Your task to perform on an android device: Go to CNN.com Image 0: 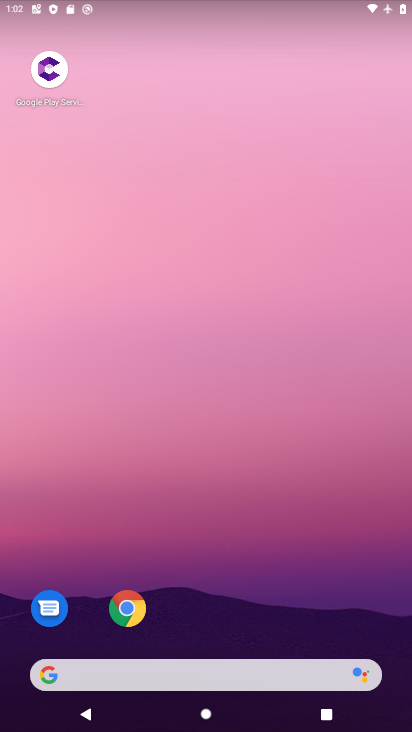
Step 0: drag from (259, 577) to (255, 65)
Your task to perform on an android device: Go to CNN.com Image 1: 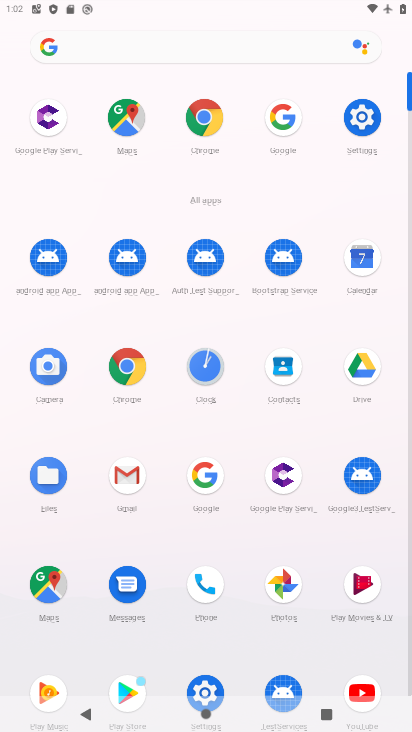
Step 1: click (202, 116)
Your task to perform on an android device: Go to CNN.com Image 2: 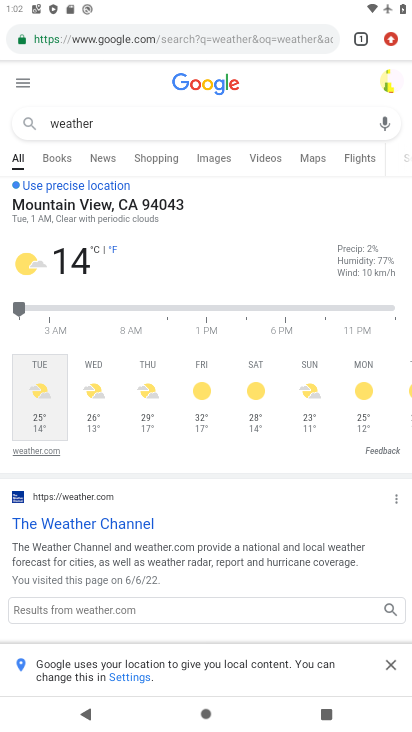
Step 2: click (224, 34)
Your task to perform on an android device: Go to CNN.com Image 3: 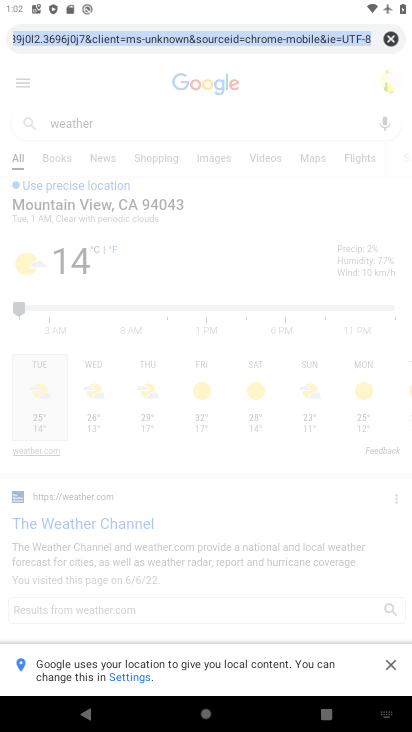
Step 3: type ""
Your task to perform on an android device: Go to CNN.com Image 4: 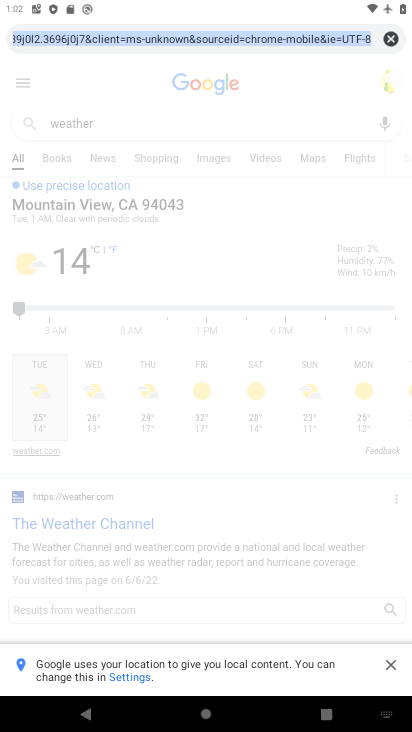
Step 4: type "cnn"
Your task to perform on an android device: Go to CNN.com Image 5: 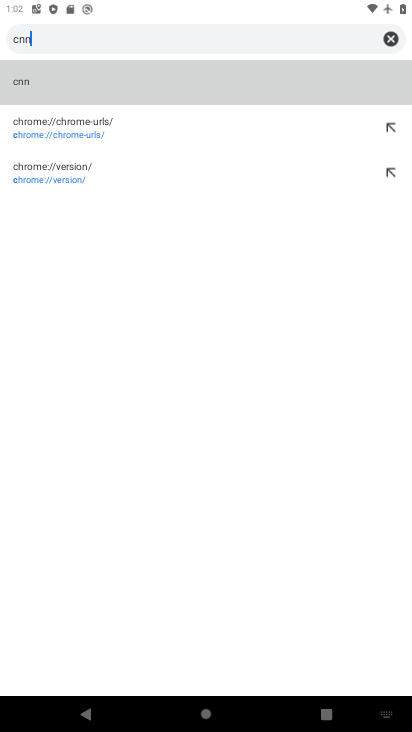
Step 5: type ""
Your task to perform on an android device: Go to CNN.com Image 6: 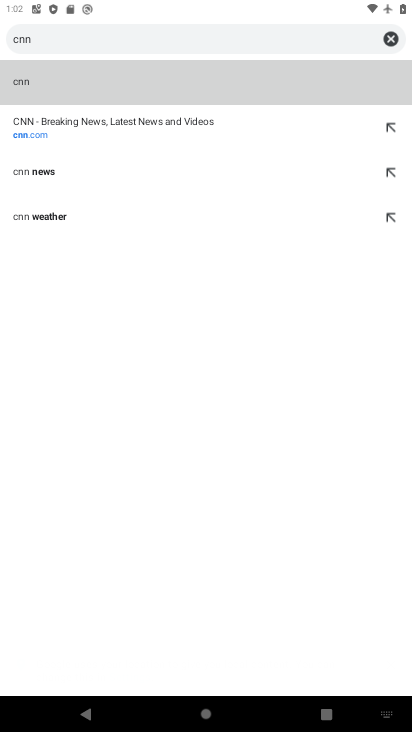
Step 6: click (34, 131)
Your task to perform on an android device: Go to CNN.com Image 7: 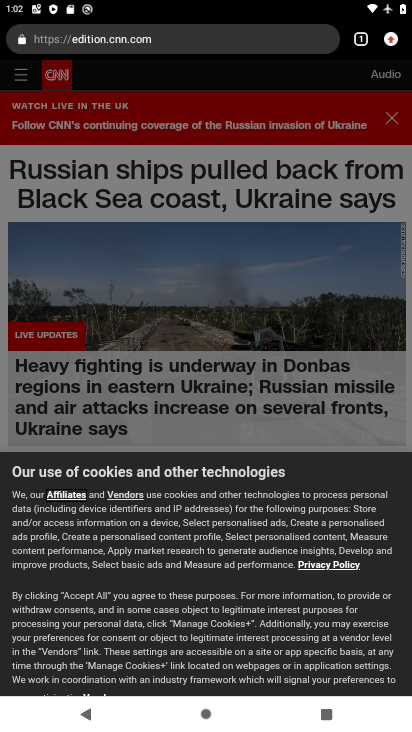
Step 7: task complete